Your task to perform on an android device: toggle javascript in the chrome app Image 0: 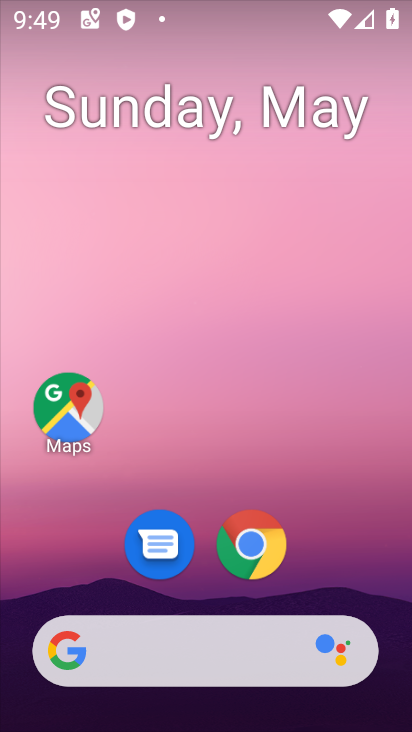
Step 0: drag from (360, 550) to (402, 3)
Your task to perform on an android device: toggle javascript in the chrome app Image 1: 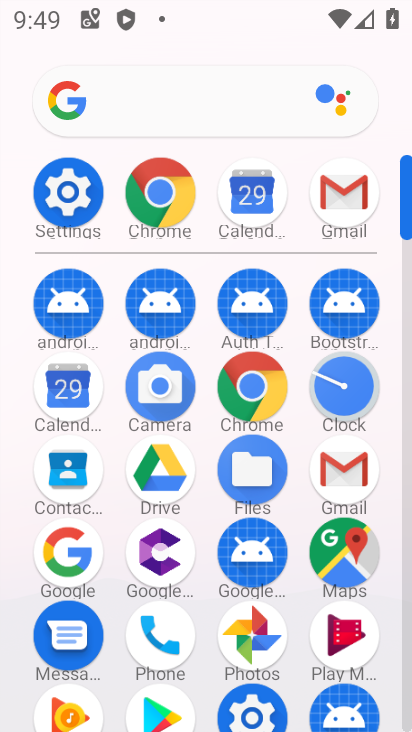
Step 1: click (160, 206)
Your task to perform on an android device: toggle javascript in the chrome app Image 2: 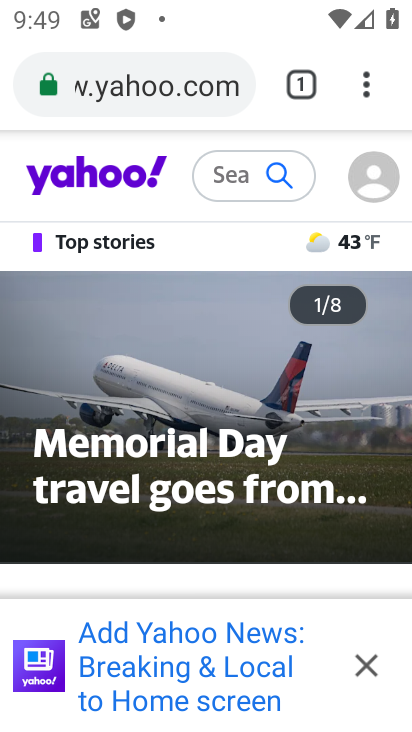
Step 2: drag from (362, 94) to (162, 591)
Your task to perform on an android device: toggle javascript in the chrome app Image 3: 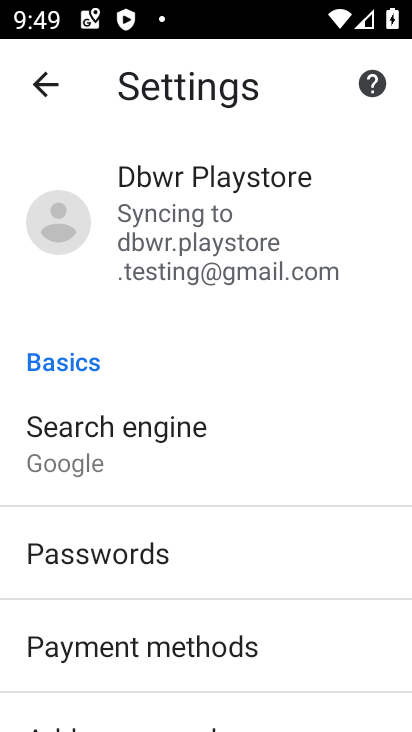
Step 3: drag from (258, 630) to (292, 24)
Your task to perform on an android device: toggle javascript in the chrome app Image 4: 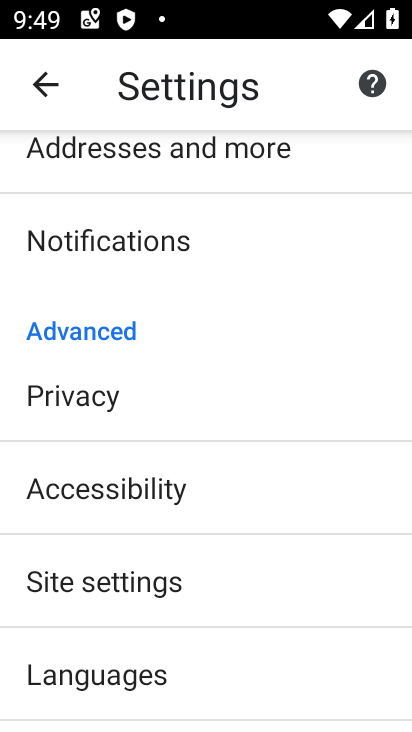
Step 4: drag from (208, 567) to (182, 215)
Your task to perform on an android device: toggle javascript in the chrome app Image 5: 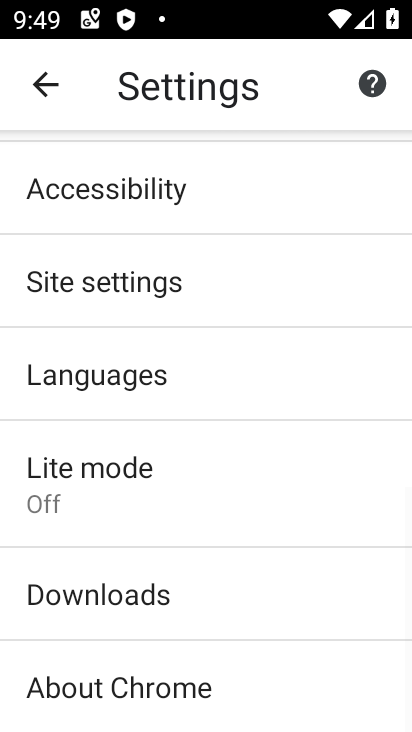
Step 5: click (151, 281)
Your task to perform on an android device: toggle javascript in the chrome app Image 6: 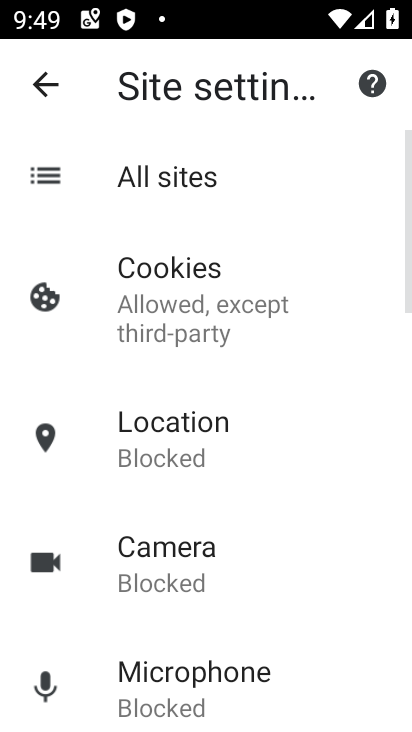
Step 6: drag from (216, 651) to (243, 136)
Your task to perform on an android device: toggle javascript in the chrome app Image 7: 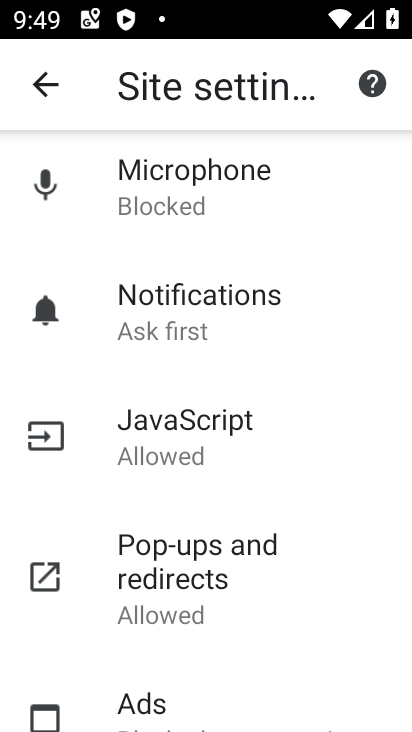
Step 7: click (180, 438)
Your task to perform on an android device: toggle javascript in the chrome app Image 8: 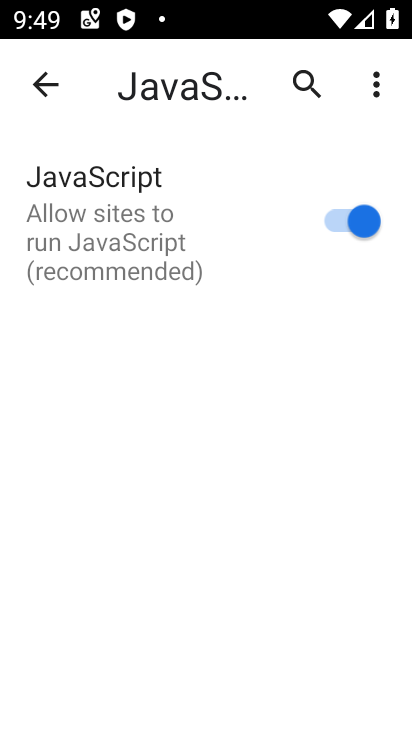
Step 8: click (328, 223)
Your task to perform on an android device: toggle javascript in the chrome app Image 9: 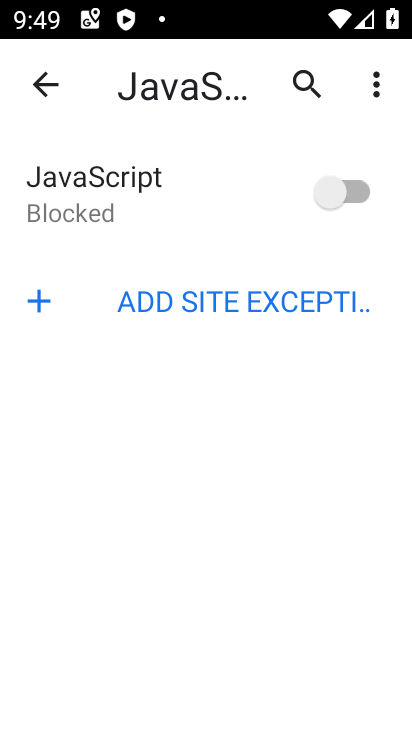
Step 9: task complete